Your task to perform on an android device: Check the news Image 0: 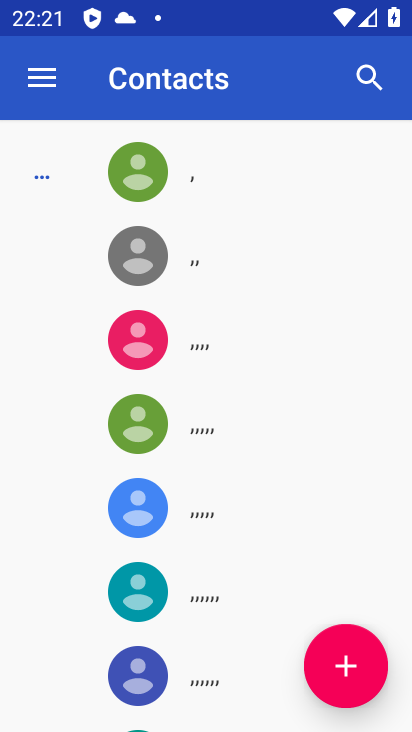
Step 0: press home button
Your task to perform on an android device: Check the news Image 1: 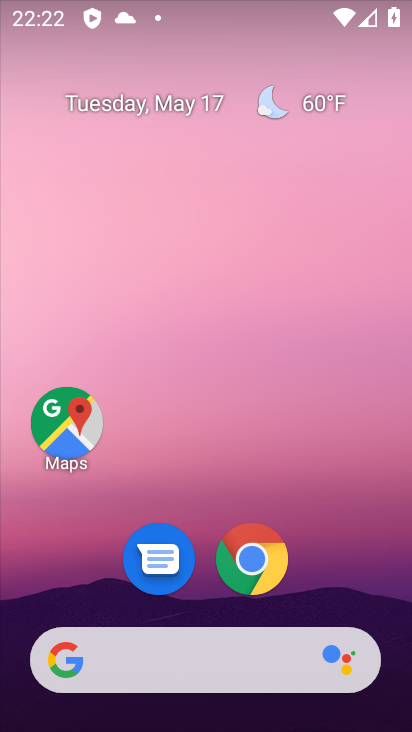
Step 1: click (252, 555)
Your task to perform on an android device: Check the news Image 2: 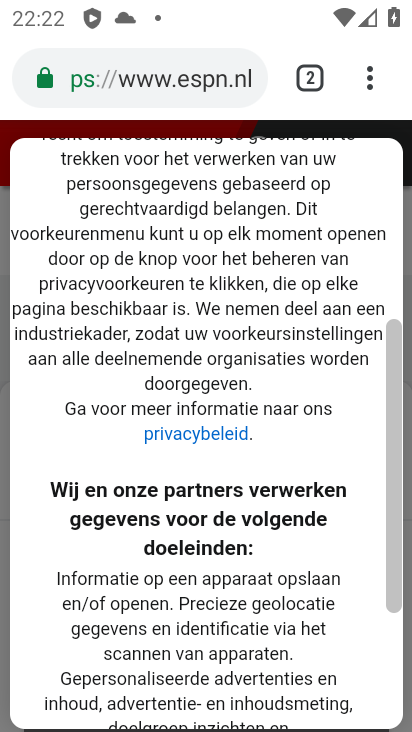
Step 2: click (180, 73)
Your task to perform on an android device: Check the news Image 3: 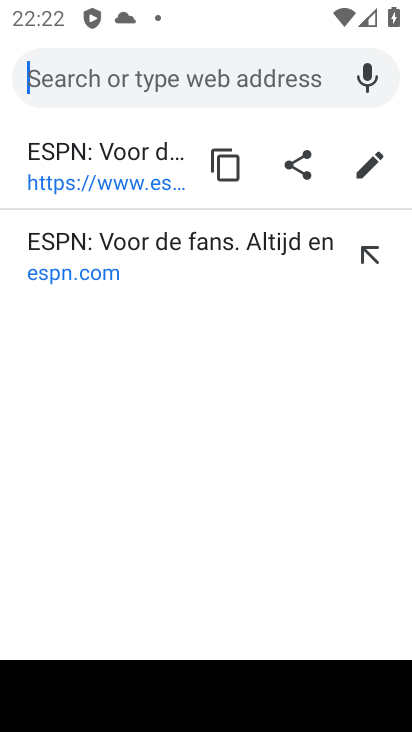
Step 3: type "news"
Your task to perform on an android device: Check the news Image 4: 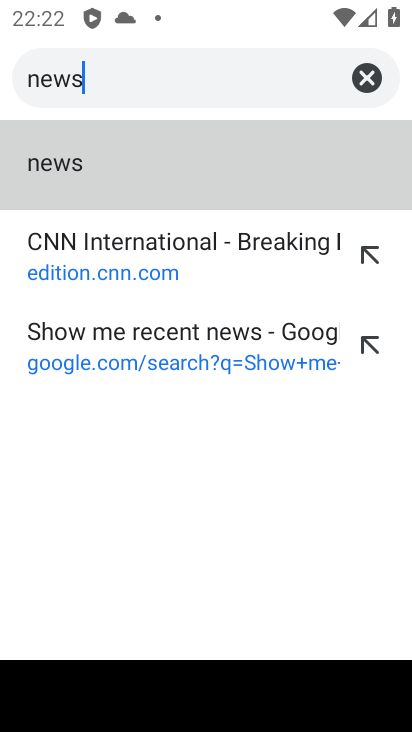
Step 4: click (61, 162)
Your task to perform on an android device: Check the news Image 5: 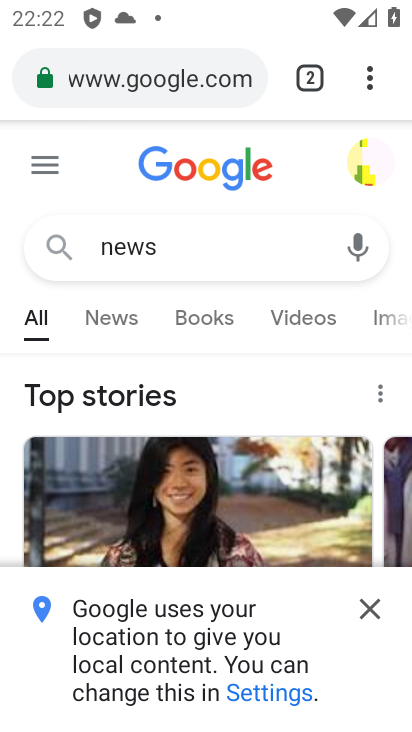
Step 5: click (132, 313)
Your task to perform on an android device: Check the news Image 6: 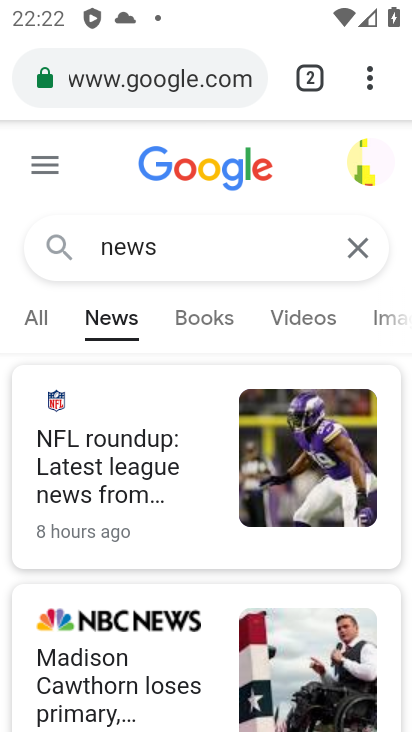
Step 6: task complete